Your task to perform on an android device: change the clock display to show seconds Image 0: 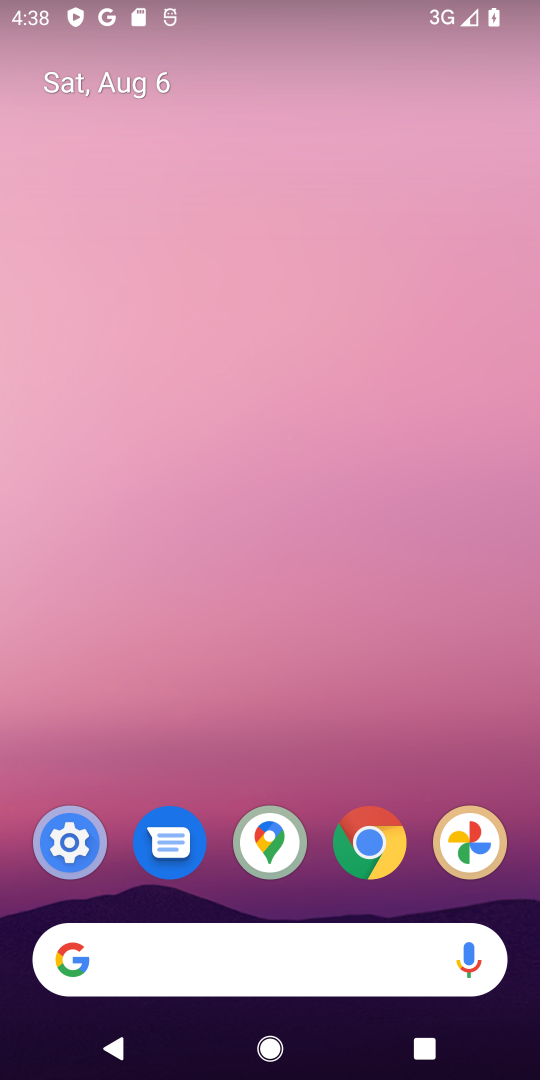
Step 0: drag from (509, 982) to (342, 244)
Your task to perform on an android device: change the clock display to show seconds Image 1: 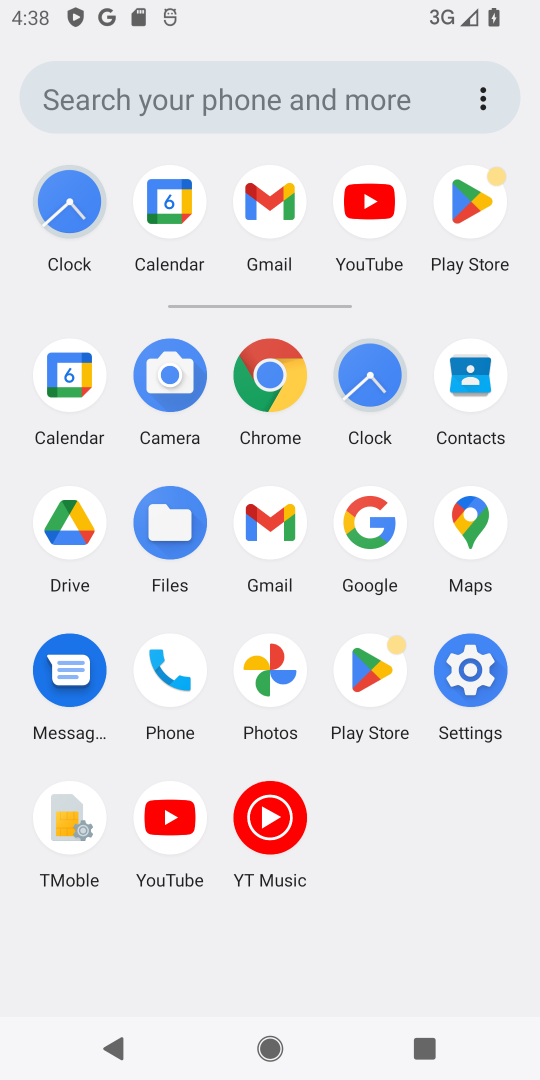
Step 1: click (368, 377)
Your task to perform on an android device: change the clock display to show seconds Image 2: 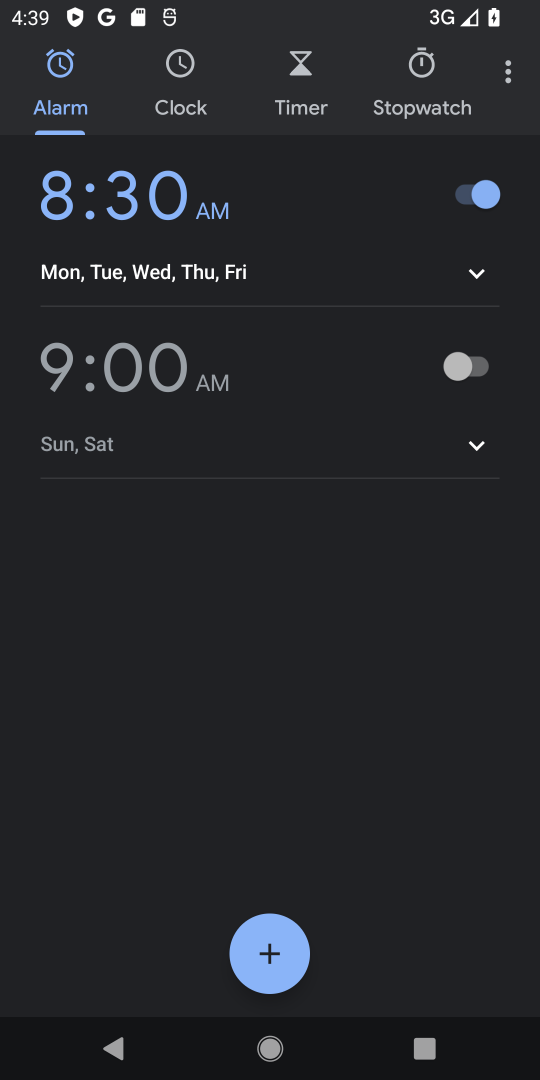
Step 2: click (510, 61)
Your task to perform on an android device: change the clock display to show seconds Image 3: 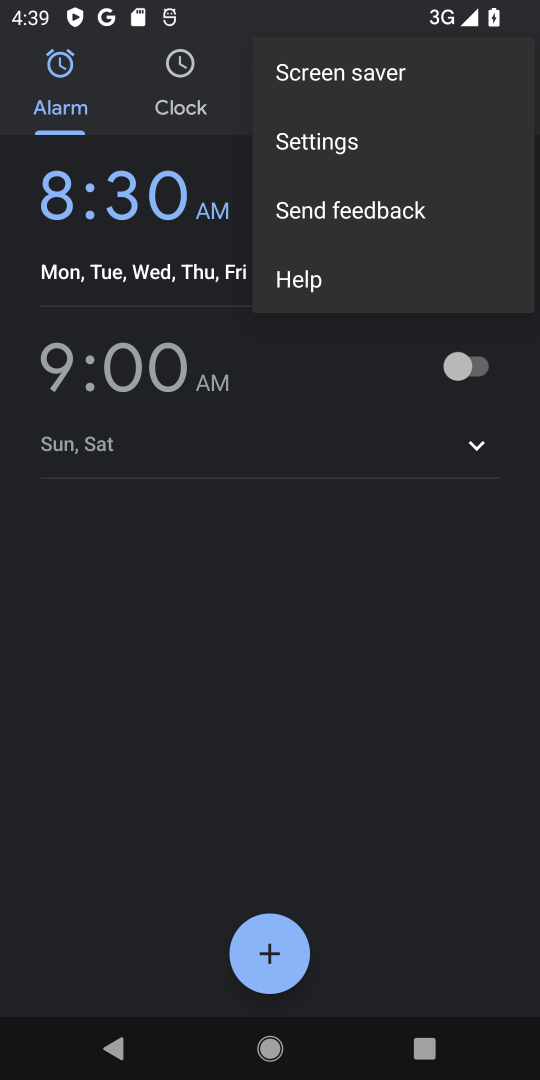
Step 3: click (337, 141)
Your task to perform on an android device: change the clock display to show seconds Image 4: 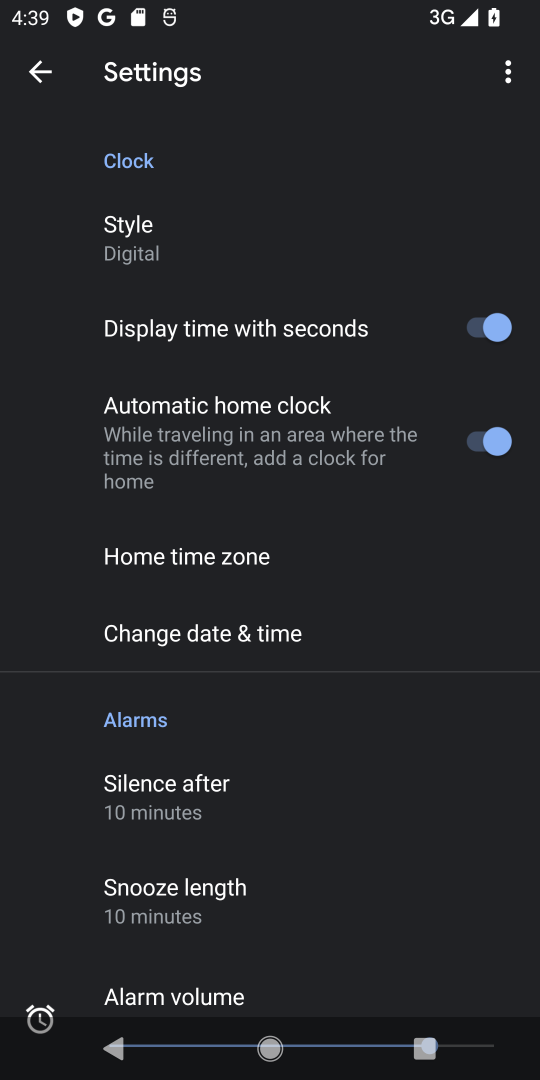
Step 4: task complete